Your task to perform on an android device: turn on the 12-hour format for clock Image 0: 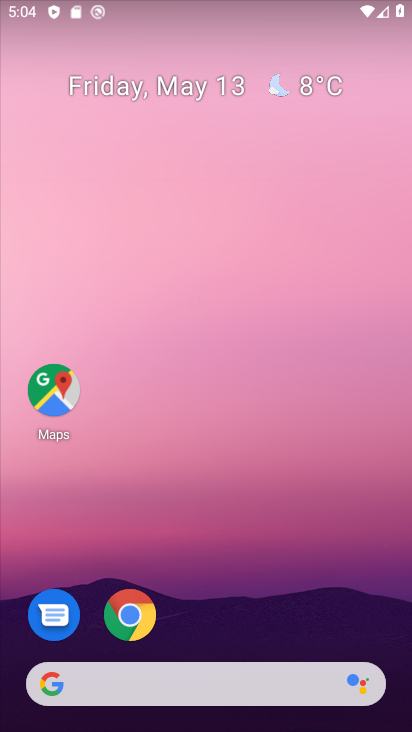
Step 0: drag from (235, 519) to (0, 521)
Your task to perform on an android device: turn on the 12-hour format for clock Image 1: 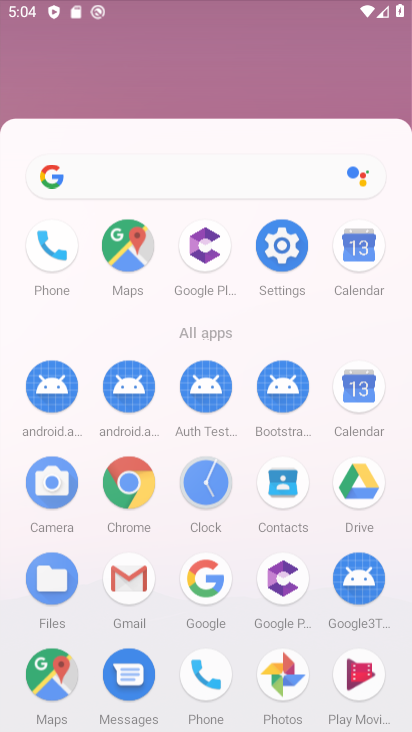
Step 1: drag from (6, 512) to (13, 263)
Your task to perform on an android device: turn on the 12-hour format for clock Image 2: 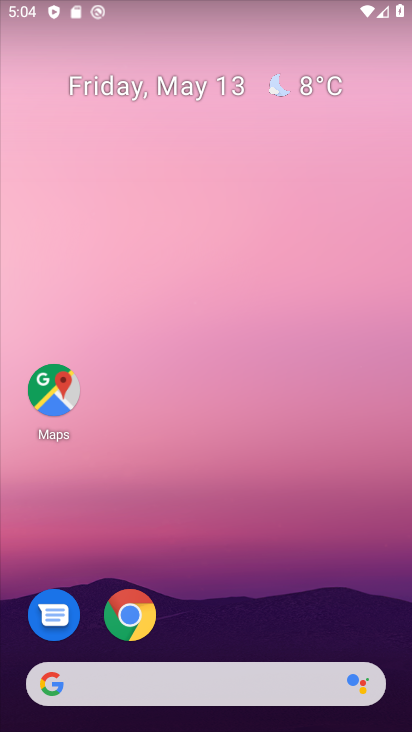
Step 2: drag from (4, 551) to (1, 437)
Your task to perform on an android device: turn on the 12-hour format for clock Image 3: 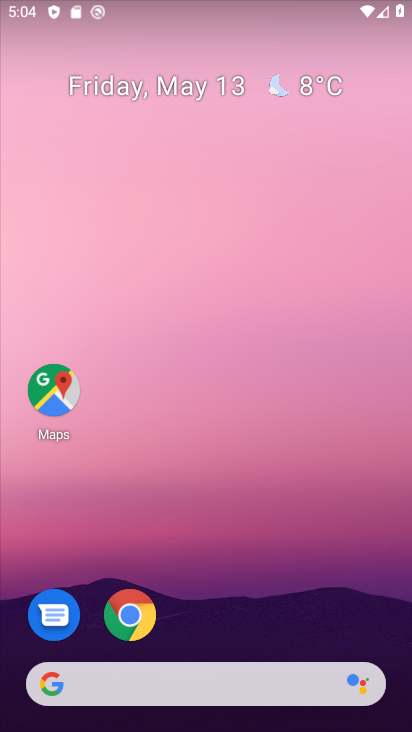
Step 3: drag from (0, 517) to (40, 5)
Your task to perform on an android device: turn on the 12-hour format for clock Image 4: 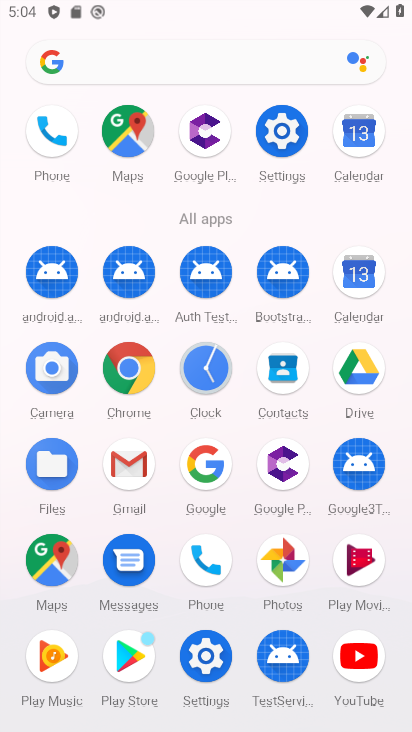
Step 4: drag from (283, 660) to (290, 363)
Your task to perform on an android device: turn on the 12-hour format for clock Image 5: 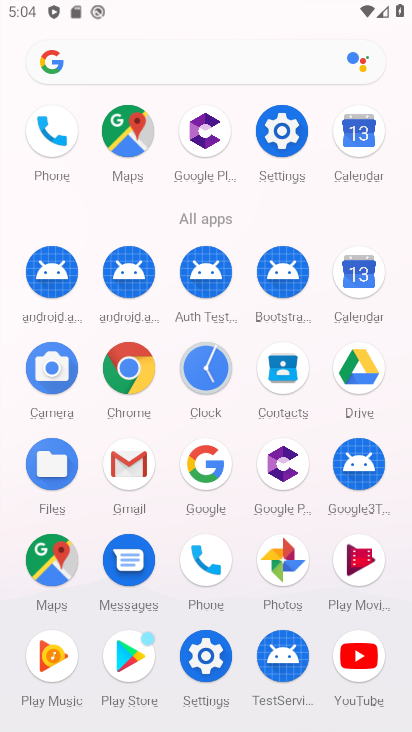
Step 5: click (207, 365)
Your task to perform on an android device: turn on the 12-hour format for clock Image 6: 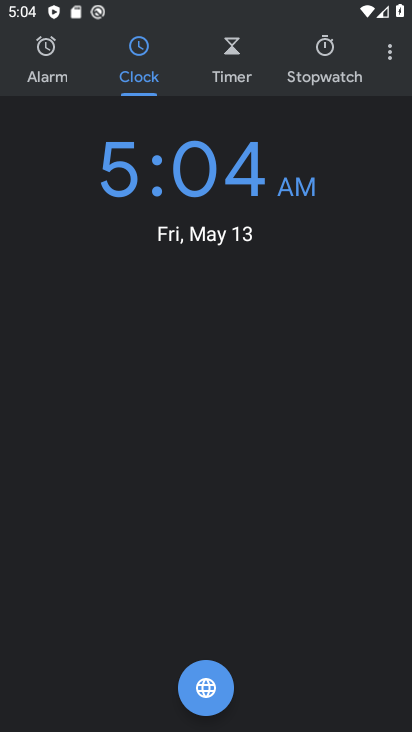
Step 6: drag from (391, 57) to (320, 94)
Your task to perform on an android device: turn on the 12-hour format for clock Image 7: 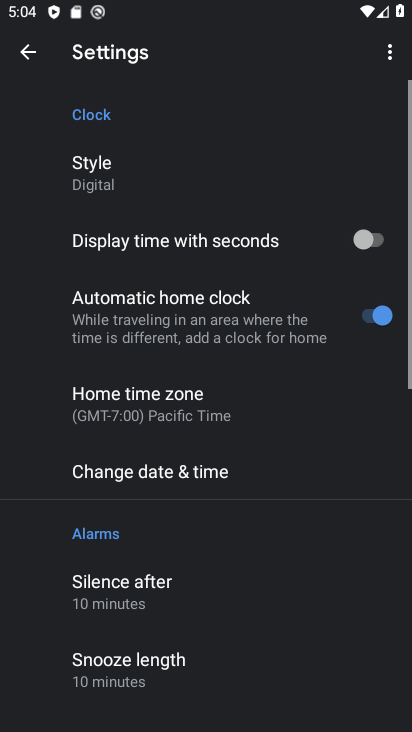
Step 7: drag from (221, 546) to (209, 233)
Your task to perform on an android device: turn on the 12-hour format for clock Image 8: 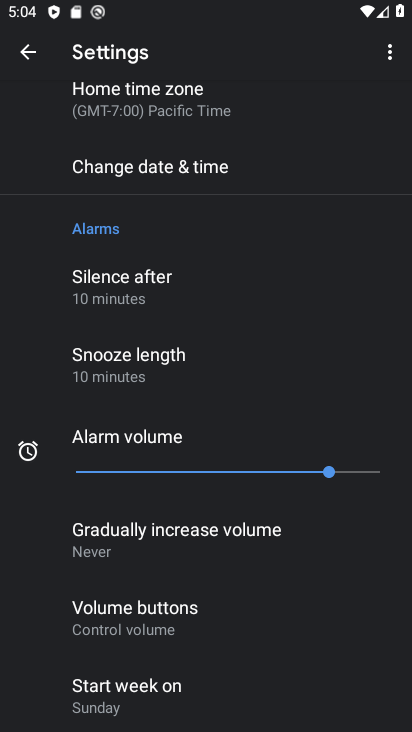
Step 8: drag from (220, 566) to (238, 158)
Your task to perform on an android device: turn on the 12-hour format for clock Image 9: 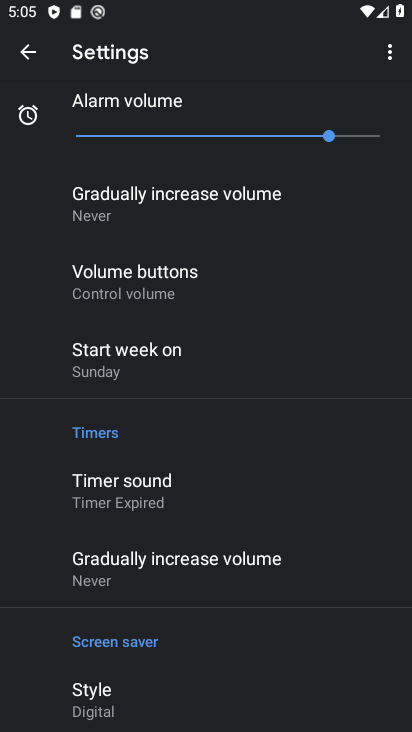
Step 9: drag from (206, 486) to (223, 138)
Your task to perform on an android device: turn on the 12-hour format for clock Image 10: 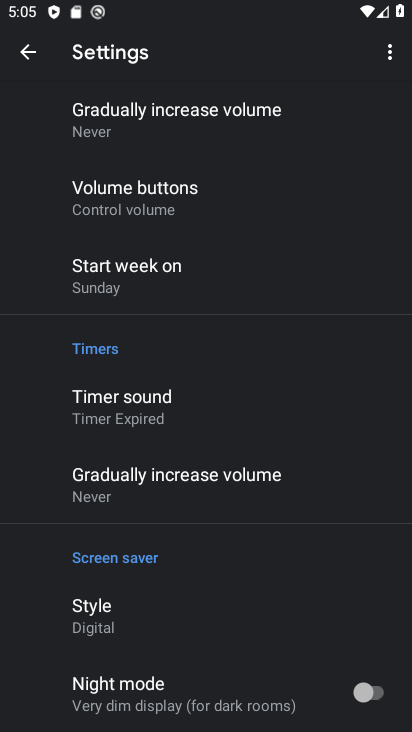
Step 10: drag from (228, 219) to (219, 566)
Your task to perform on an android device: turn on the 12-hour format for clock Image 11: 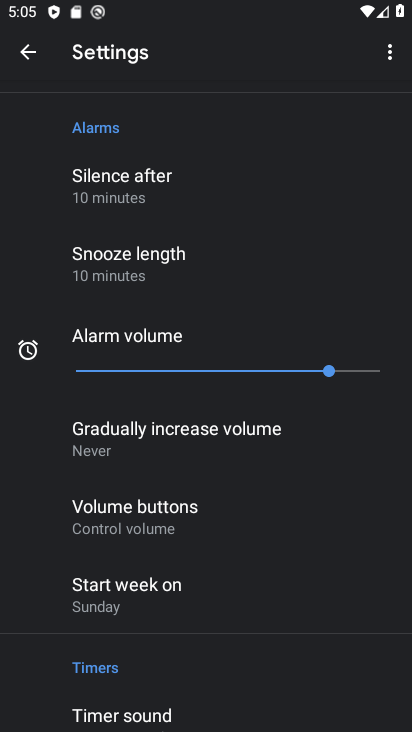
Step 11: drag from (223, 200) to (232, 538)
Your task to perform on an android device: turn on the 12-hour format for clock Image 12: 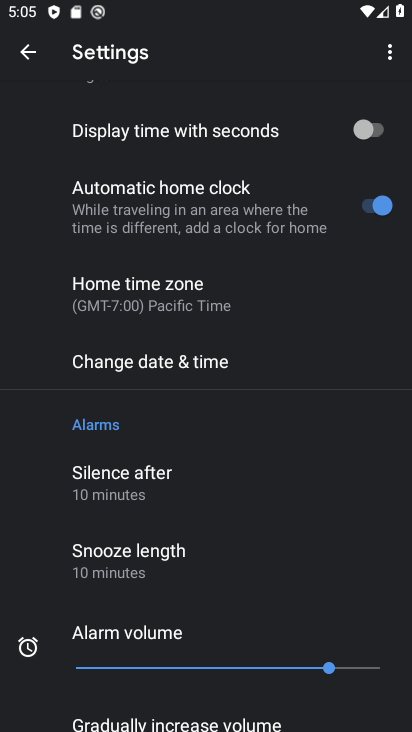
Step 12: click (204, 361)
Your task to perform on an android device: turn on the 12-hour format for clock Image 13: 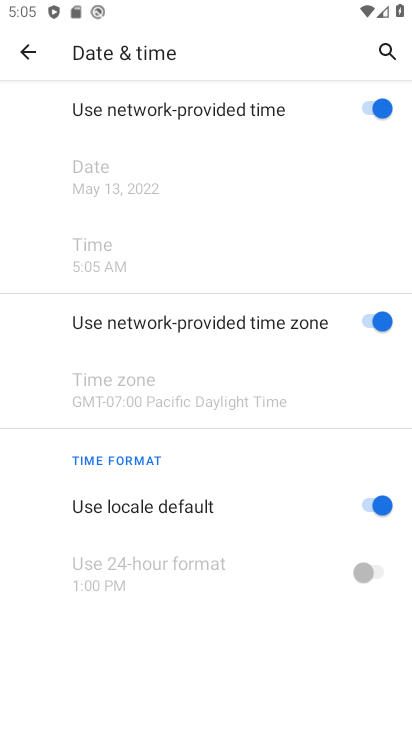
Step 13: task complete